Your task to perform on an android device: Open Android settings Image 0: 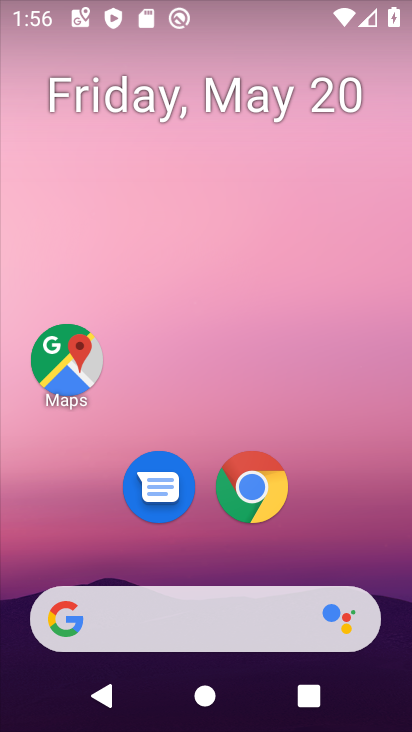
Step 0: drag from (373, 544) to (368, 57)
Your task to perform on an android device: Open Android settings Image 1: 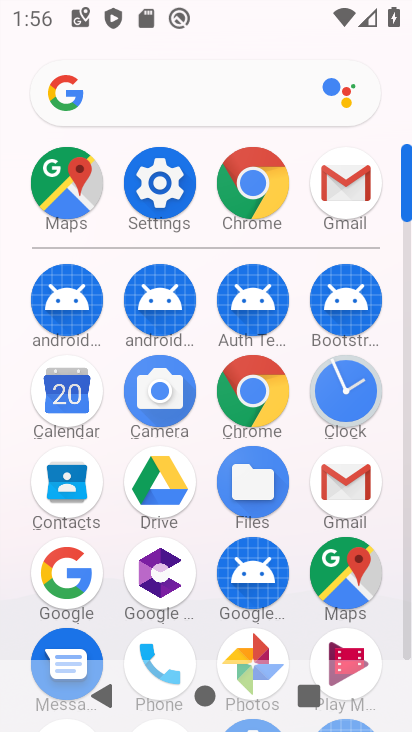
Step 1: click (156, 209)
Your task to perform on an android device: Open Android settings Image 2: 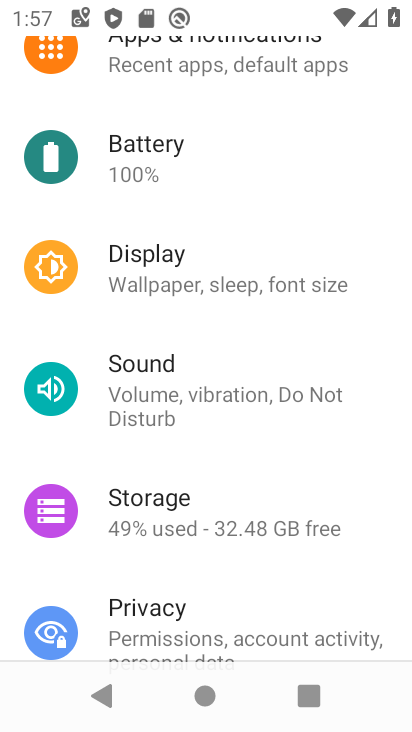
Step 2: task complete